Your task to perform on an android device: change alarm snooze length Image 0: 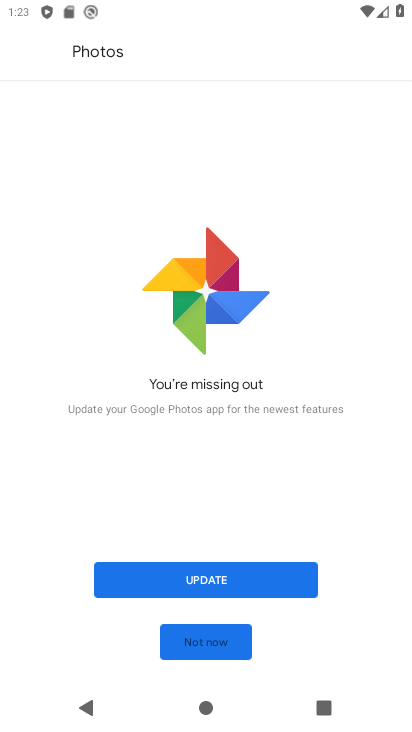
Step 0: press home button
Your task to perform on an android device: change alarm snooze length Image 1: 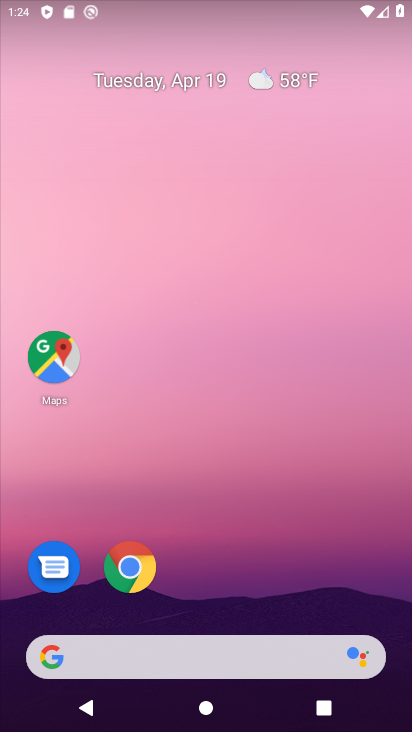
Step 1: drag from (226, 487) to (200, 320)
Your task to perform on an android device: change alarm snooze length Image 2: 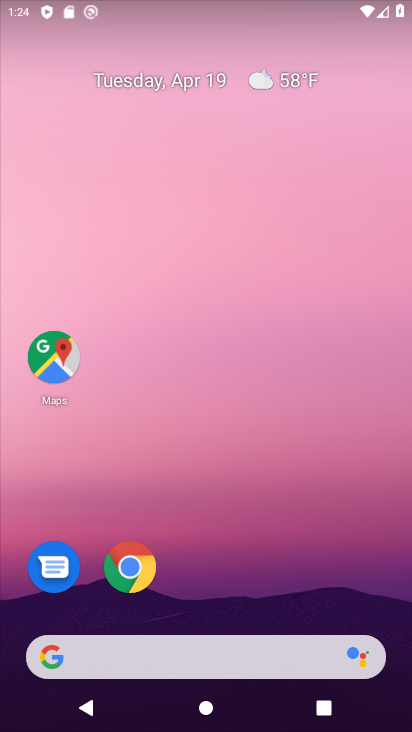
Step 2: drag from (300, 539) to (253, 141)
Your task to perform on an android device: change alarm snooze length Image 3: 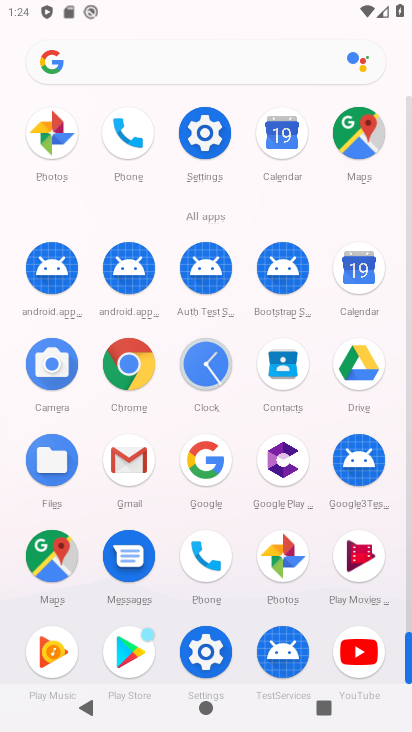
Step 3: click (195, 376)
Your task to perform on an android device: change alarm snooze length Image 4: 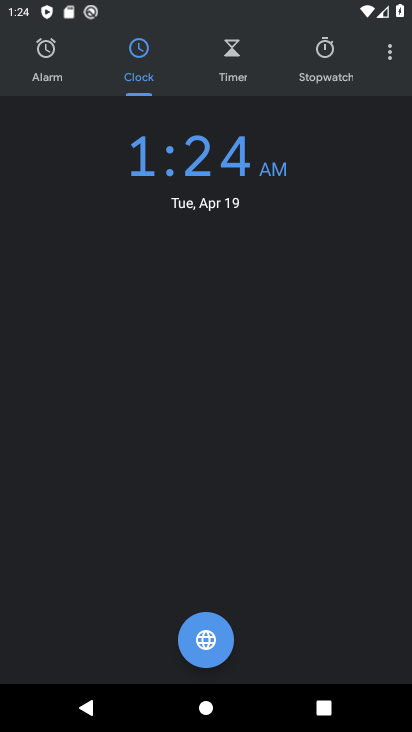
Step 4: click (387, 56)
Your task to perform on an android device: change alarm snooze length Image 5: 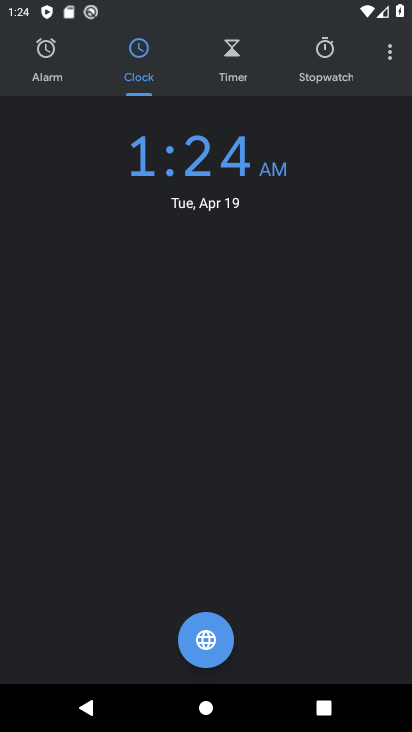
Step 5: click (392, 55)
Your task to perform on an android device: change alarm snooze length Image 6: 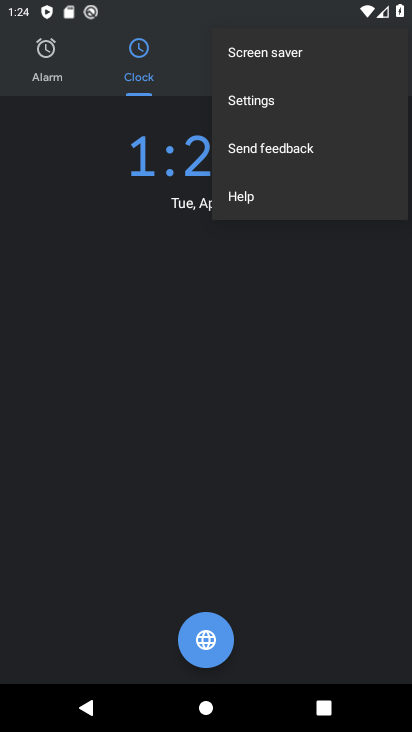
Step 6: click (291, 104)
Your task to perform on an android device: change alarm snooze length Image 7: 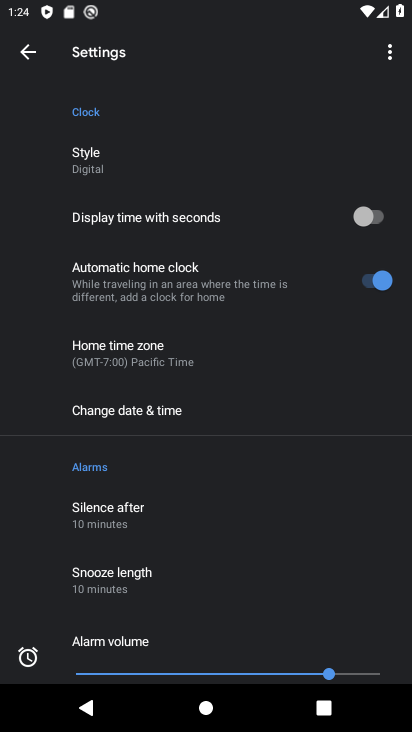
Step 7: click (113, 580)
Your task to perform on an android device: change alarm snooze length Image 8: 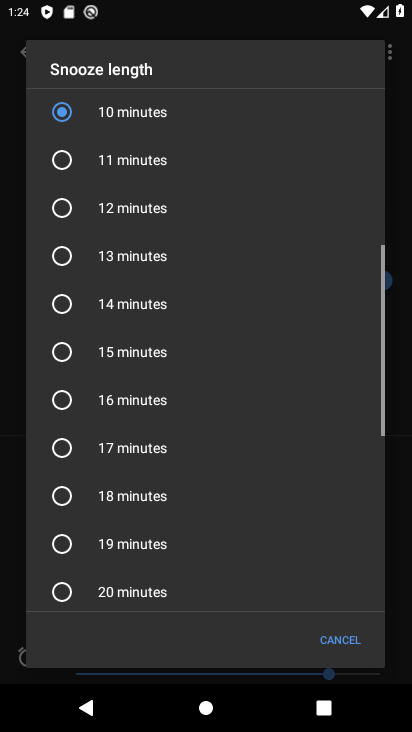
Step 8: click (115, 170)
Your task to perform on an android device: change alarm snooze length Image 9: 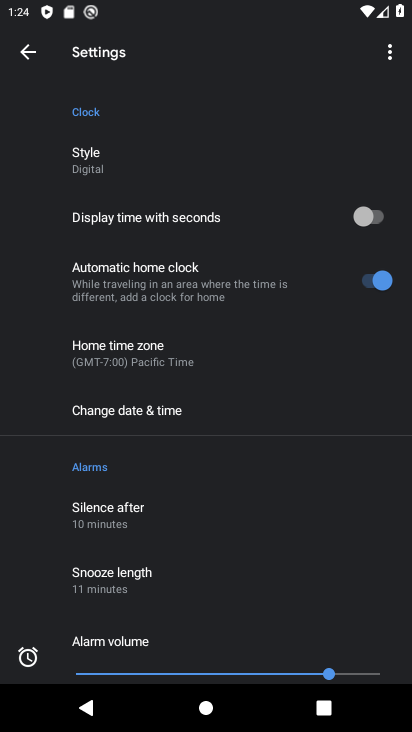
Step 9: task complete